Your task to perform on an android device: Go to display settings Image 0: 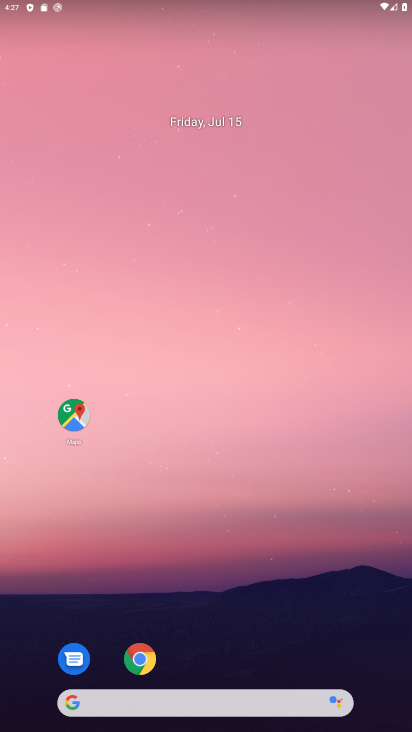
Step 0: drag from (169, 676) to (231, 120)
Your task to perform on an android device: Go to display settings Image 1: 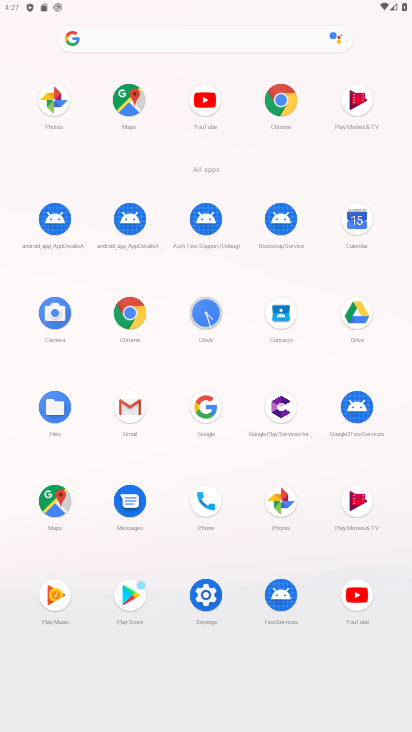
Step 1: click (218, 601)
Your task to perform on an android device: Go to display settings Image 2: 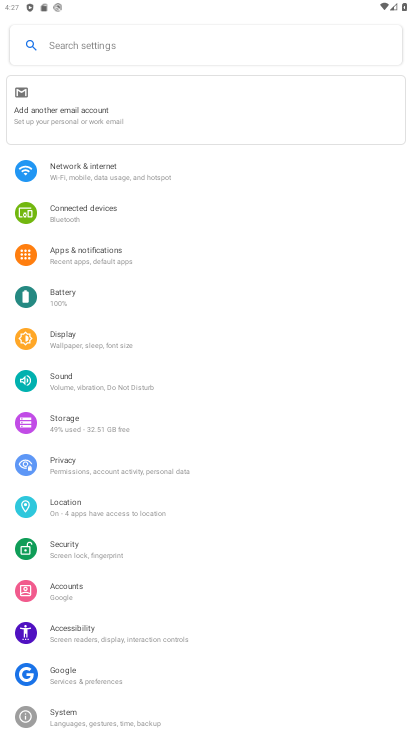
Step 2: click (93, 343)
Your task to perform on an android device: Go to display settings Image 3: 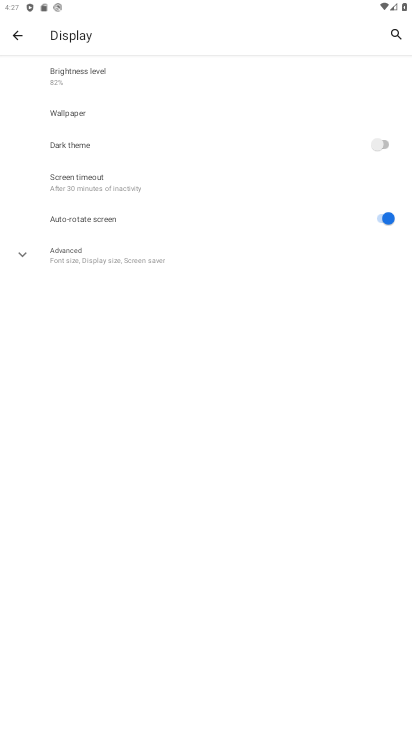
Step 3: task complete